Your task to perform on an android device: See recent photos Image 0: 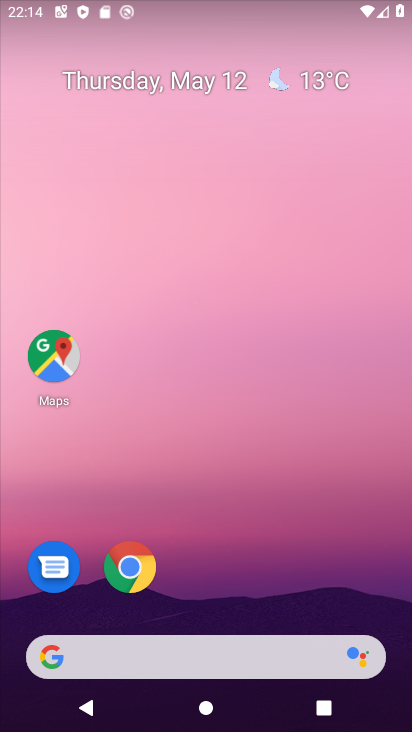
Step 0: drag from (227, 564) to (195, 42)
Your task to perform on an android device: See recent photos Image 1: 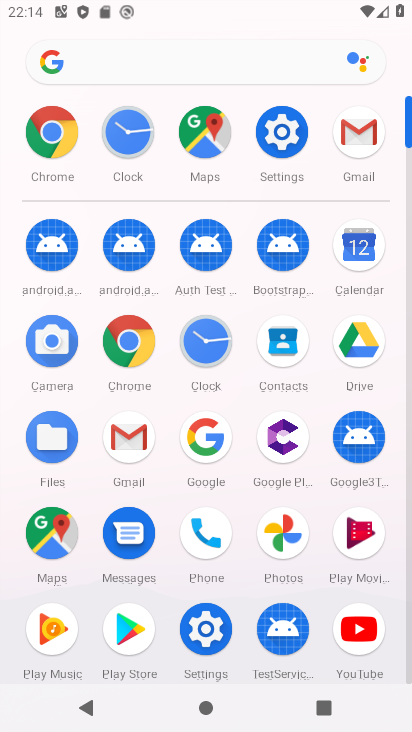
Step 1: click (281, 526)
Your task to perform on an android device: See recent photos Image 2: 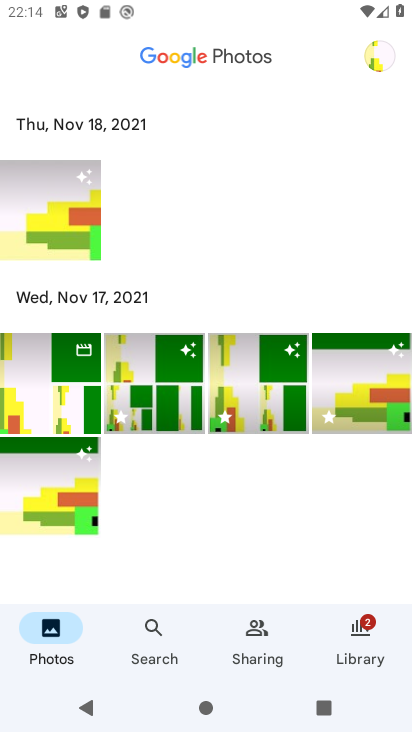
Step 2: task complete